Your task to perform on an android device: When is my next appointment? Image 0: 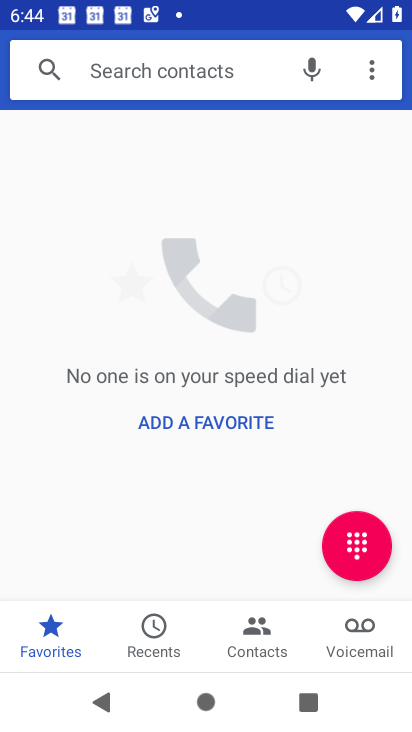
Step 0: press home button
Your task to perform on an android device: When is my next appointment? Image 1: 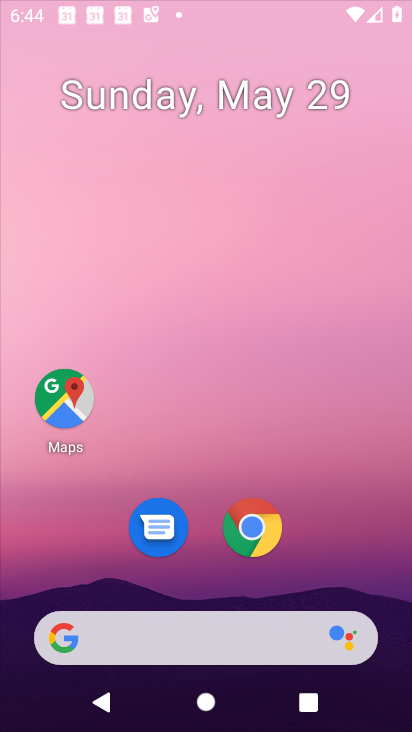
Step 1: drag from (405, 643) to (262, 65)
Your task to perform on an android device: When is my next appointment? Image 2: 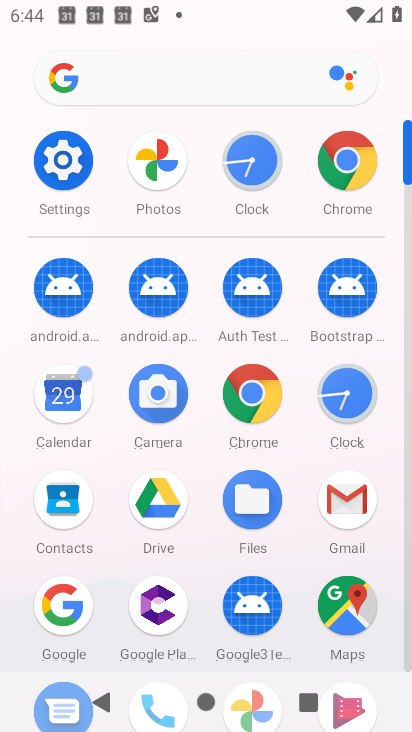
Step 2: drag from (106, 538) to (114, 203)
Your task to perform on an android device: When is my next appointment? Image 3: 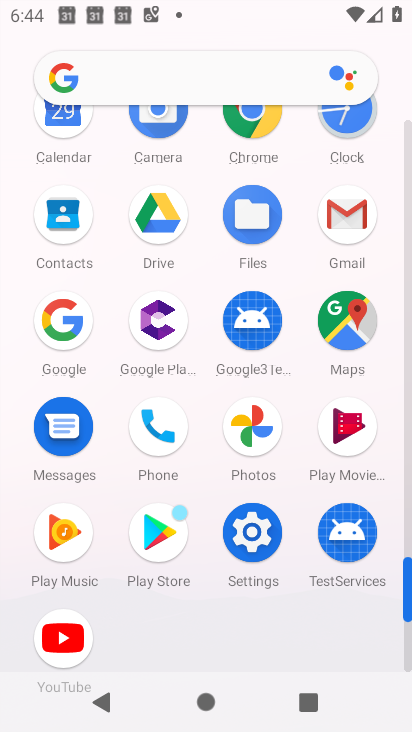
Step 3: drag from (189, 289) to (193, 581)
Your task to perform on an android device: When is my next appointment? Image 4: 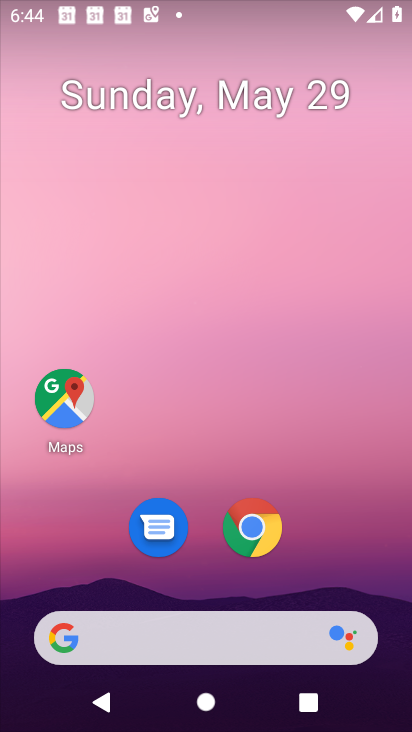
Step 4: drag from (383, 548) to (278, 22)
Your task to perform on an android device: When is my next appointment? Image 5: 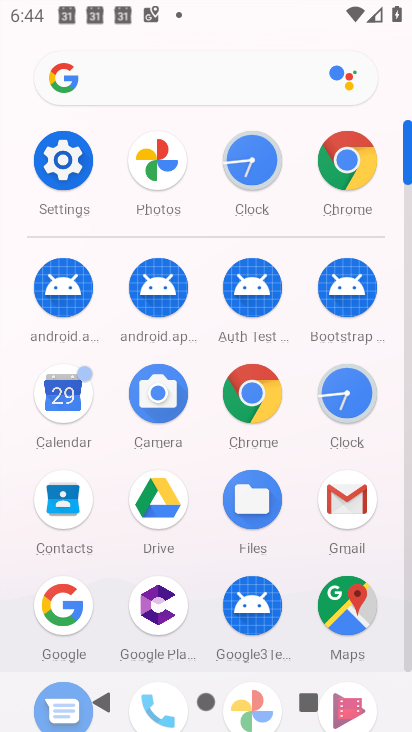
Step 5: click (46, 391)
Your task to perform on an android device: When is my next appointment? Image 6: 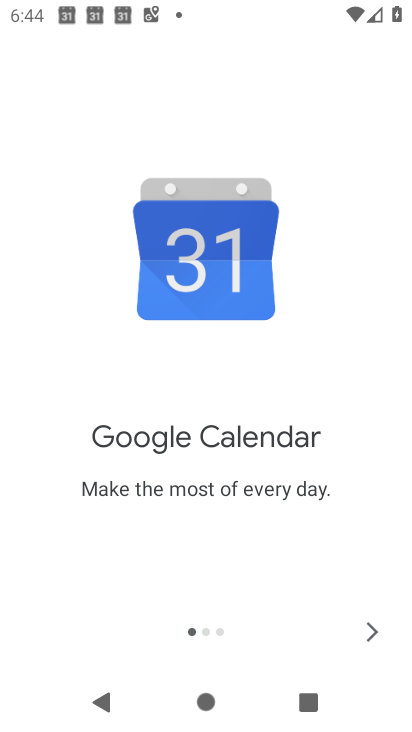
Step 6: click (362, 635)
Your task to perform on an android device: When is my next appointment? Image 7: 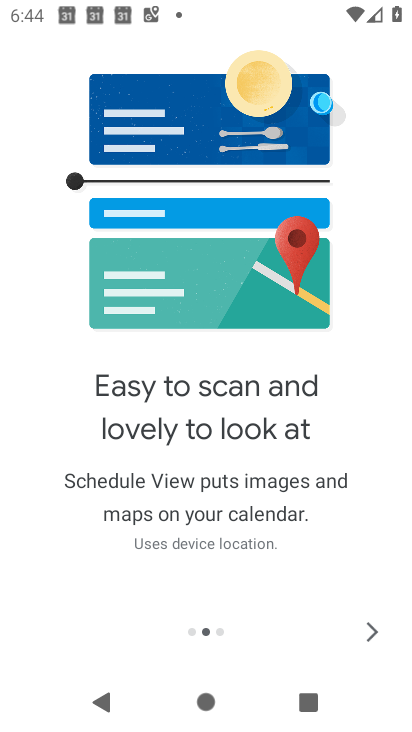
Step 7: click (363, 635)
Your task to perform on an android device: When is my next appointment? Image 8: 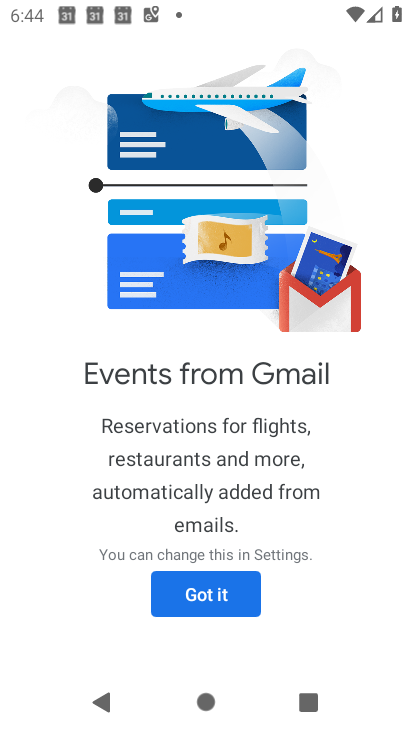
Step 8: click (363, 635)
Your task to perform on an android device: When is my next appointment? Image 9: 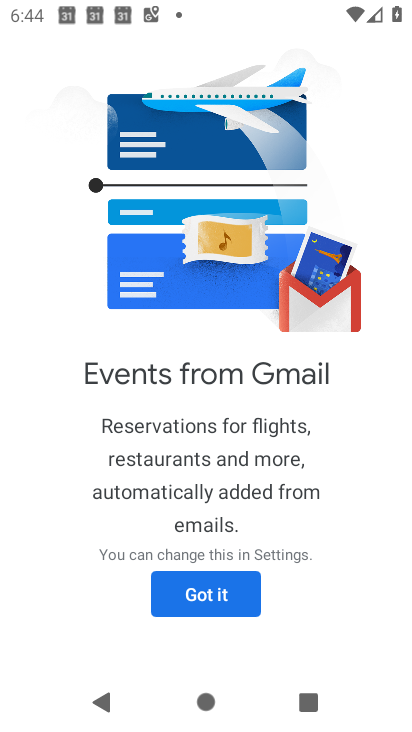
Step 9: click (186, 588)
Your task to perform on an android device: When is my next appointment? Image 10: 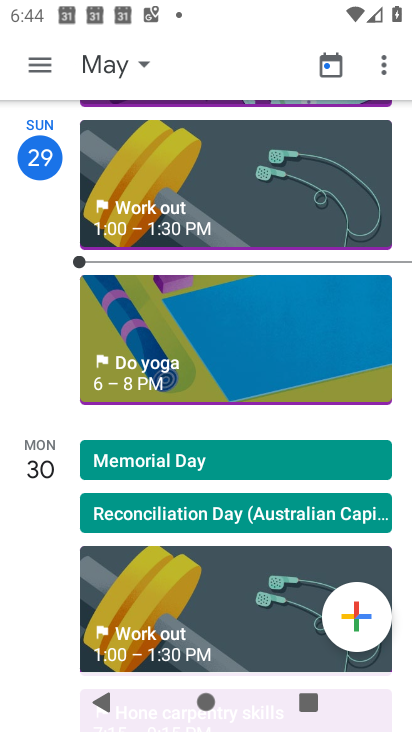
Step 10: task complete